Your task to perform on an android device: clear all cookies in the chrome app Image 0: 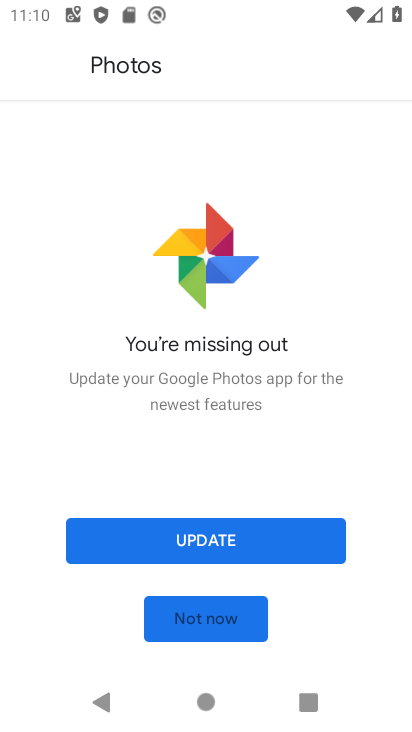
Step 0: press home button
Your task to perform on an android device: clear all cookies in the chrome app Image 1: 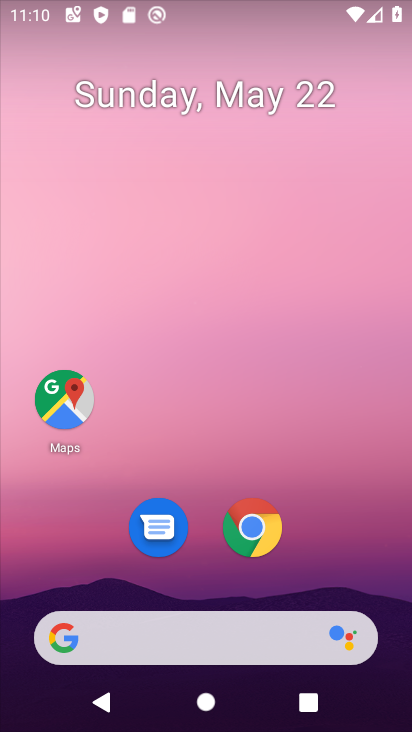
Step 1: drag from (365, 541) to (312, 190)
Your task to perform on an android device: clear all cookies in the chrome app Image 2: 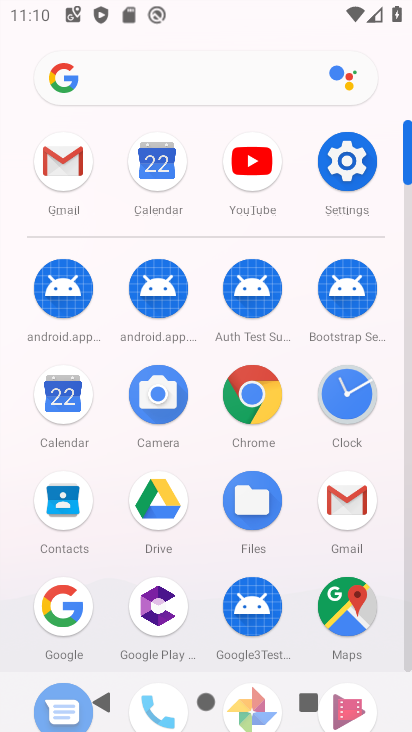
Step 2: click (262, 408)
Your task to perform on an android device: clear all cookies in the chrome app Image 3: 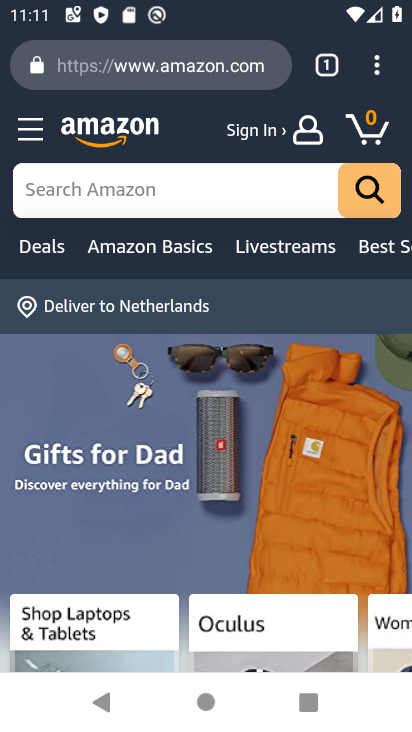
Step 3: click (389, 71)
Your task to perform on an android device: clear all cookies in the chrome app Image 4: 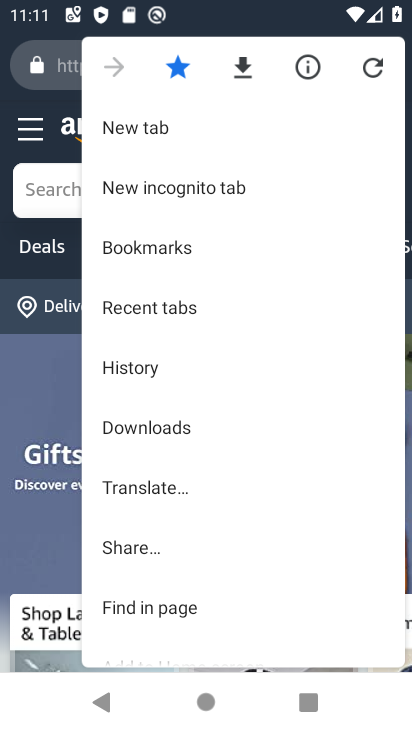
Step 4: drag from (189, 556) to (185, 353)
Your task to perform on an android device: clear all cookies in the chrome app Image 5: 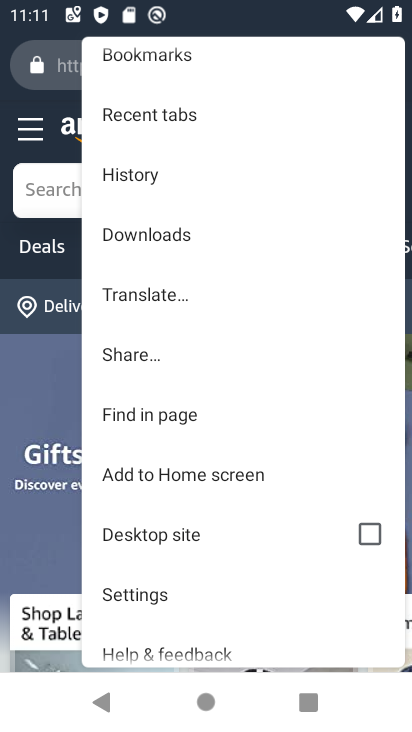
Step 5: click (183, 585)
Your task to perform on an android device: clear all cookies in the chrome app Image 6: 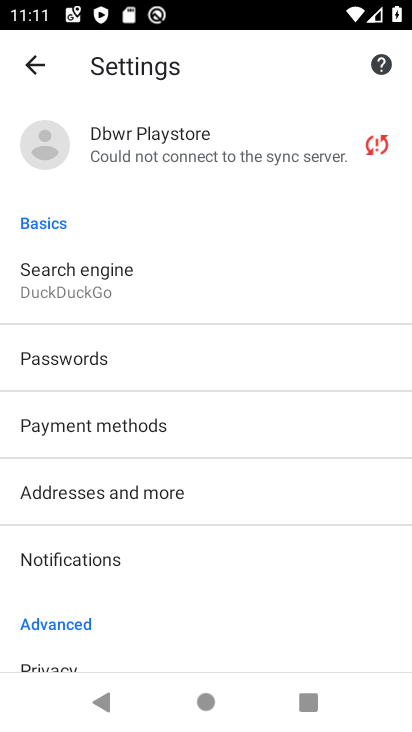
Step 6: task complete